Your task to perform on an android device: turn off location Image 0: 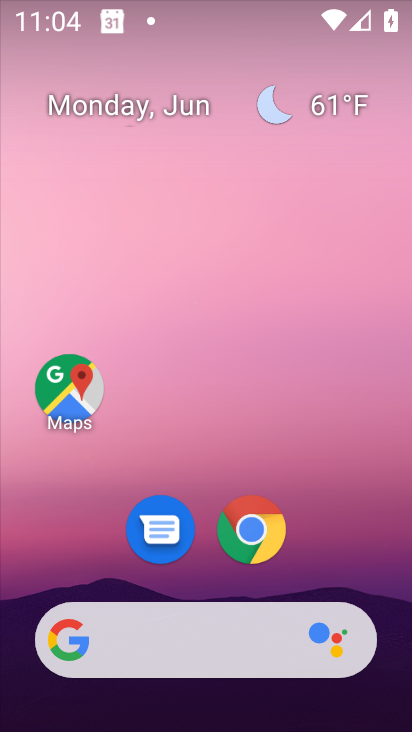
Step 0: drag from (94, 582) to (197, 174)
Your task to perform on an android device: turn off location Image 1: 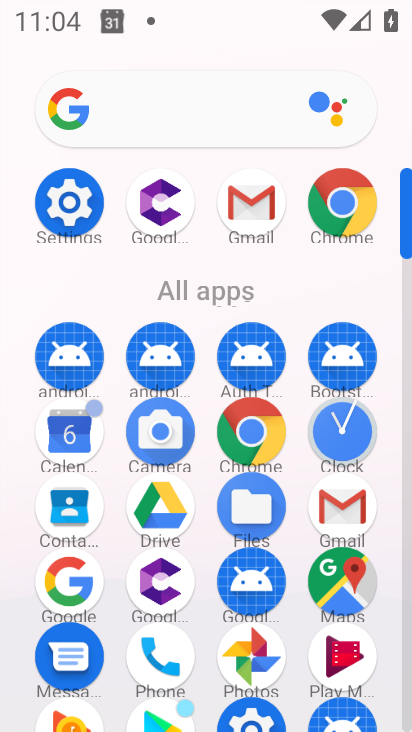
Step 1: drag from (119, 602) to (182, 329)
Your task to perform on an android device: turn off location Image 2: 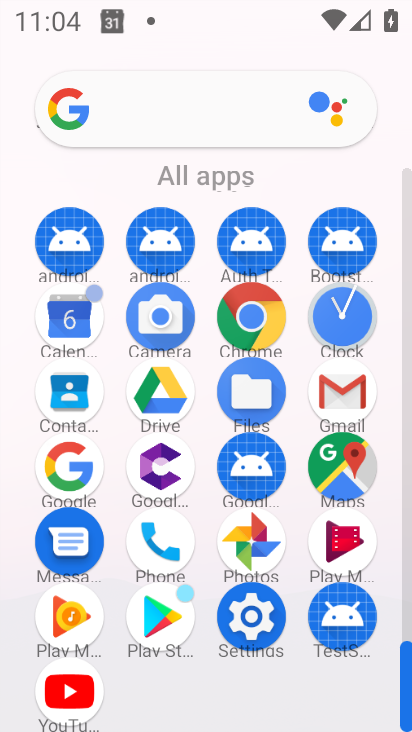
Step 2: click (245, 632)
Your task to perform on an android device: turn off location Image 3: 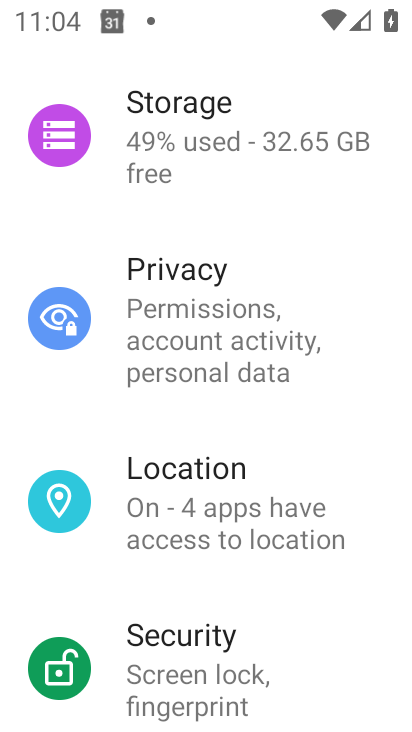
Step 3: click (223, 517)
Your task to perform on an android device: turn off location Image 4: 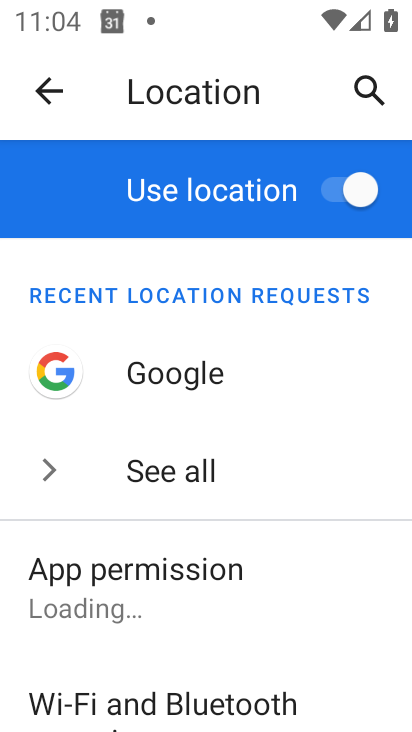
Step 4: click (332, 196)
Your task to perform on an android device: turn off location Image 5: 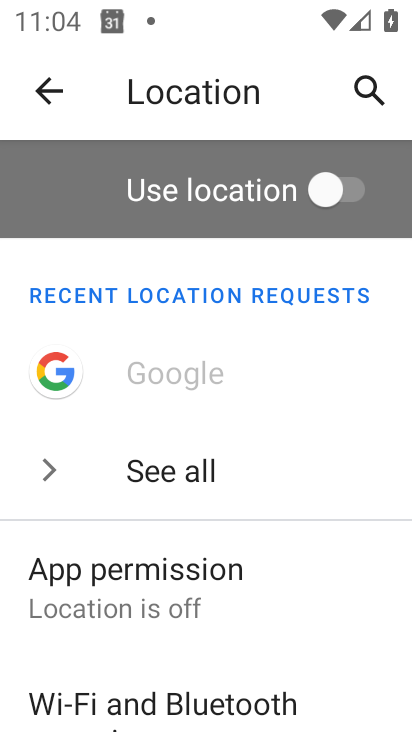
Step 5: task complete